Your task to perform on an android device: Open Google Chrome and click the shortcut for Amazon.com Image 0: 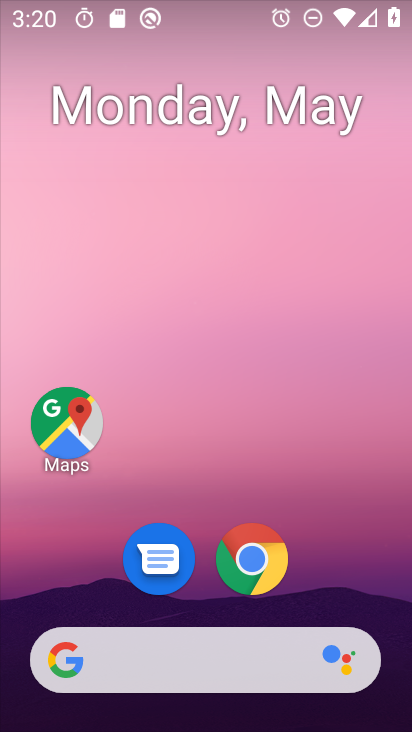
Step 0: drag from (188, 546) to (271, 137)
Your task to perform on an android device: Open Google Chrome and click the shortcut for Amazon.com Image 1: 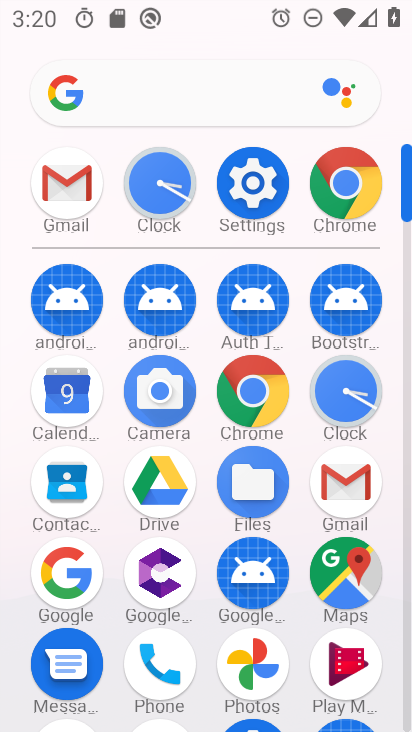
Step 1: click (258, 399)
Your task to perform on an android device: Open Google Chrome and click the shortcut for Amazon.com Image 2: 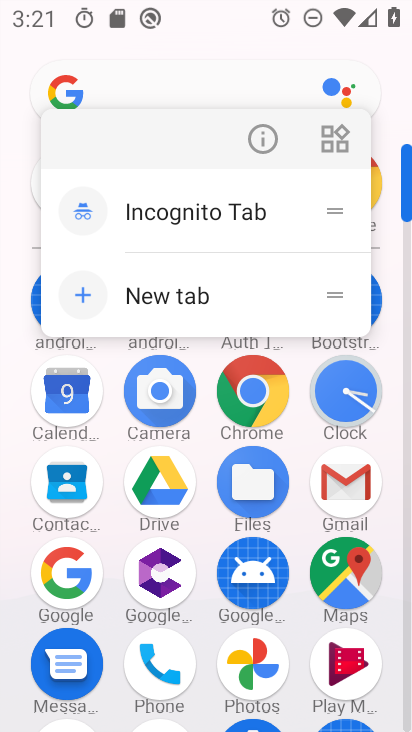
Step 2: click (264, 148)
Your task to perform on an android device: Open Google Chrome and click the shortcut for Amazon.com Image 3: 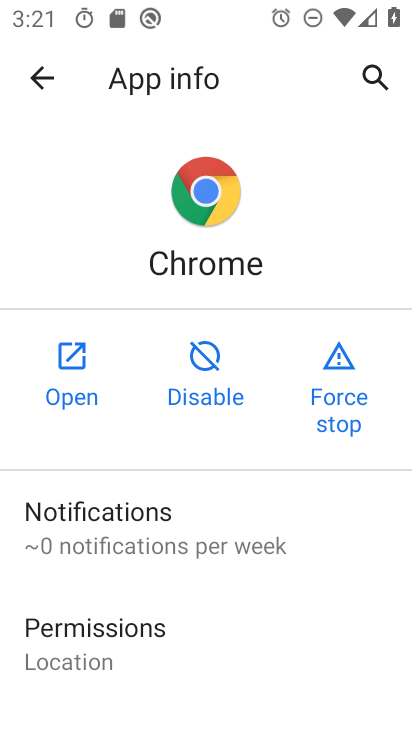
Step 3: click (81, 364)
Your task to perform on an android device: Open Google Chrome and click the shortcut for Amazon.com Image 4: 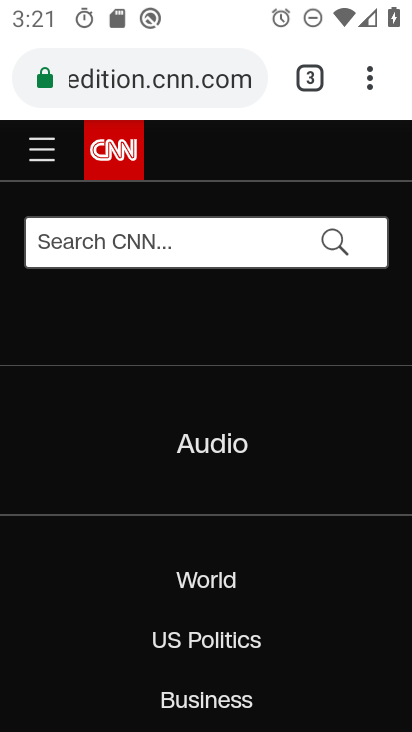
Step 4: click (190, 88)
Your task to perform on an android device: Open Google Chrome and click the shortcut for Amazon.com Image 5: 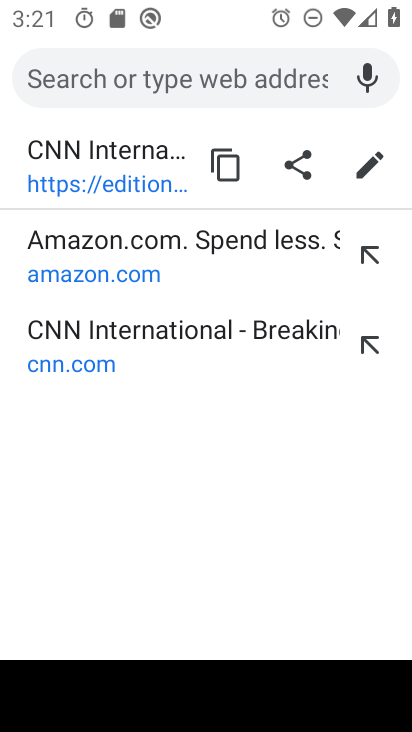
Step 5: type "amazon"
Your task to perform on an android device: Open Google Chrome and click the shortcut for Amazon.com Image 6: 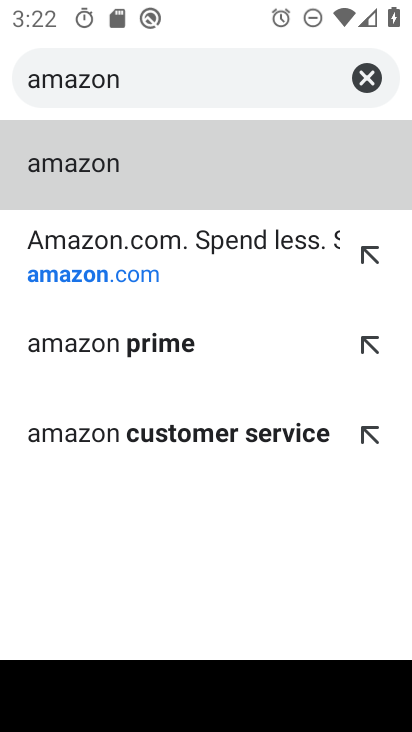
Step 6: drag from (183, 473) to (240, 313)
Your task to perform on an android device: Open Google Chrome and click the shortcut for Amazon.com Image 7: 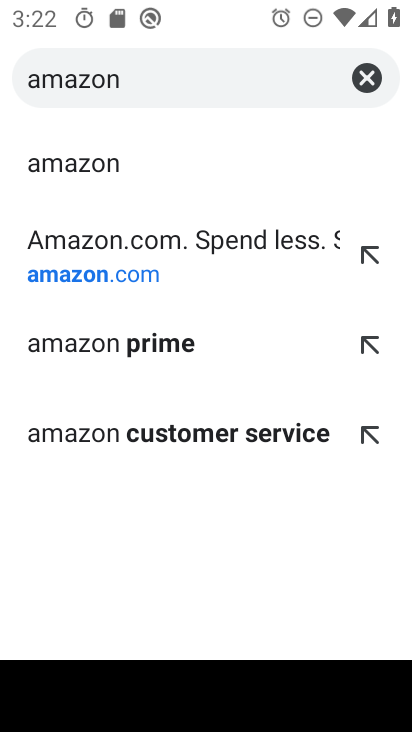
Step 7: click (78, 263)
Your task to perform on an android device: Open Google Chrome and click the shortcut for Amazon.com Image 8: 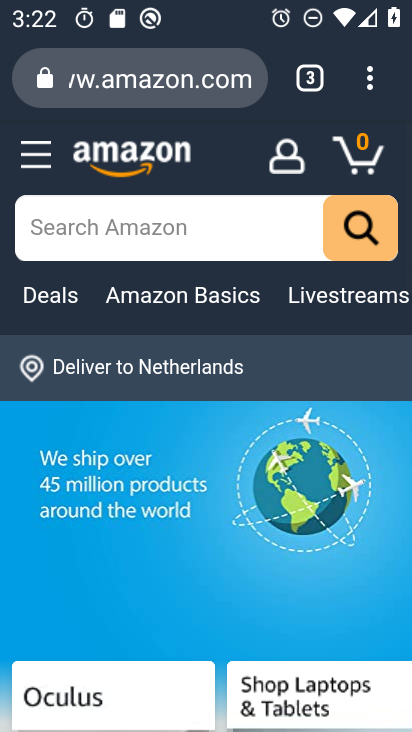
Step 8: drag from (214, 640) to (286, 212)
Your task to perform on an android device: Open Google Chrome and click the shortcut for Amazon.com Image 9: 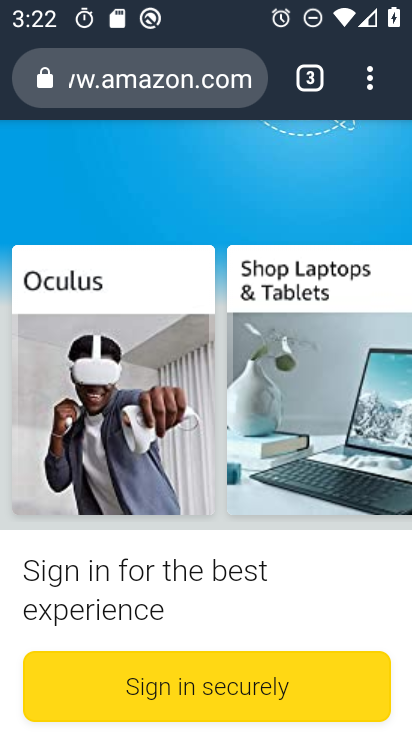
Step 9: drag from (270, 532) to (286, 252)
Your task to perform on an android device: Open Google Chrome and click the shortcut for Amazon.com Image 10: 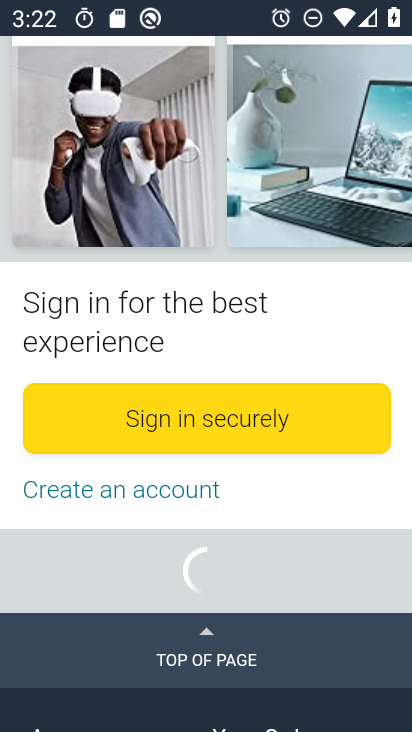
Step 10: drag from (205, 577) to (260, 169)
Your task to perform on an android device: Open Google Chrome and click the shortcut for Amazon.com Image 11: 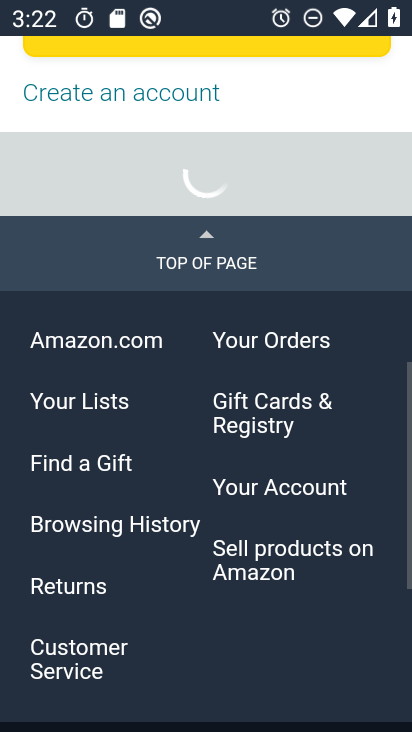
Step 11: drag from (255, 145) to (249, 696)
Your task to perform on an android device: Open Google Chrome and click the shortcut for Amazon.com Image 12: 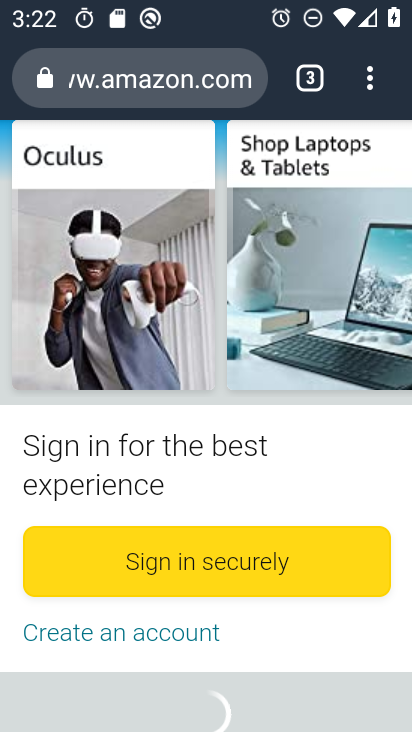
Step 12: drag from (225, 177) to (256, 713)
Your task to perform on an android device: Open Google Chrome and click the shortcut for Amazon.com Image 13: 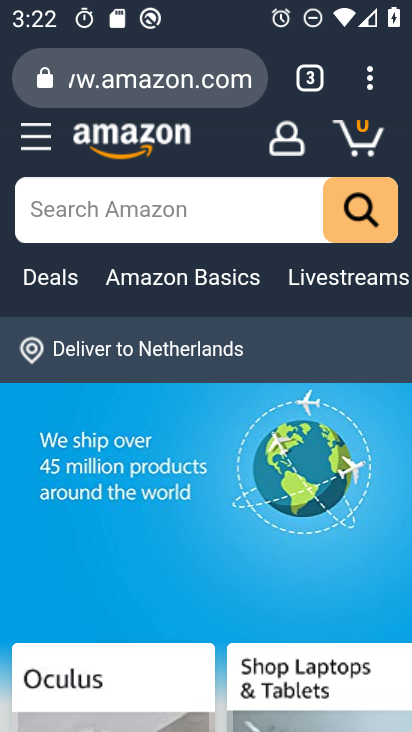
Step 13: drag from (218, 240) to (226, 672)
Your task to perform on an android device: Open Google Chrome and click the shortcut for Amazon.com Image 14: 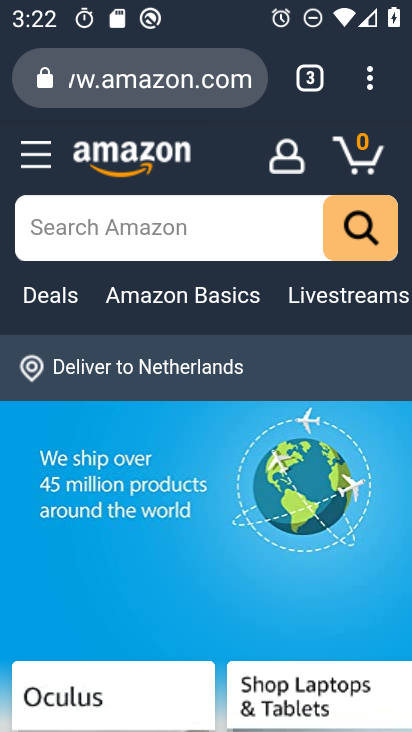
Step 14: drag from (215, 560) to (252, 261)
Your task to perform on an android device: Open Google Chrome and click the shortcut for Amazon.com Image 15: 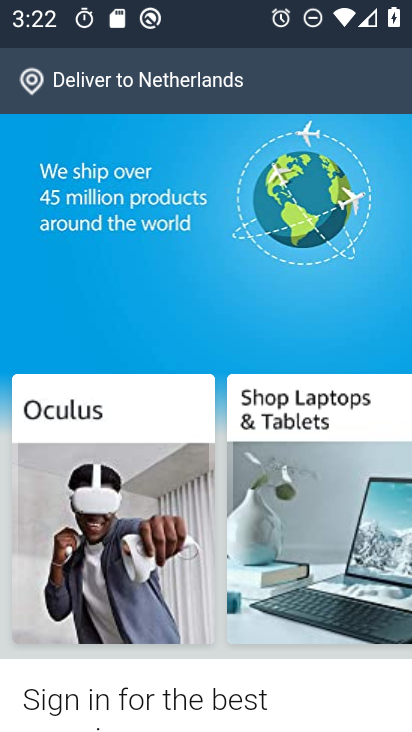
Step 15: drag from (240, 684) to (252, 384)
Your task to perform on an android device: Open Google Chrome and click the shortcut for Amazon.com Image 16: 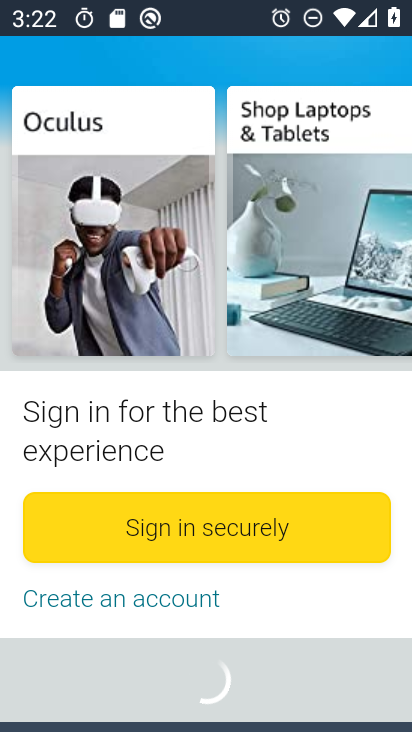
Step 16: drag from (237, 310) to (280, 644)
Your task to perform on an android device: Open Google Chrome and click the shortcut for Amazon.com Image 17: 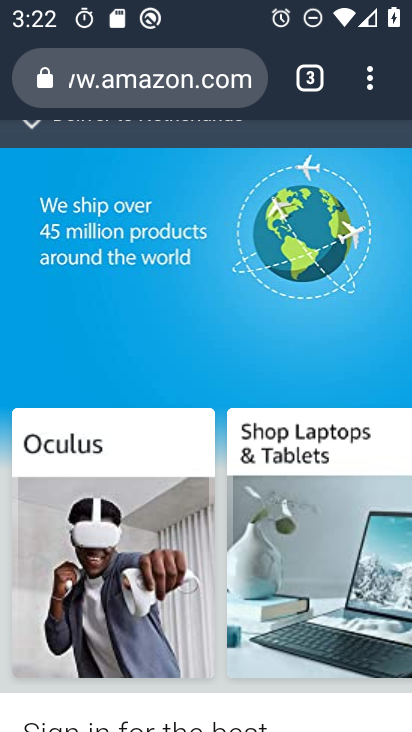
Step 17: drag from (175, 645) to (273, 180)
Your task to perform on an android device: Open Google Chrome and click the shortcut for Amazon.com Image 18: 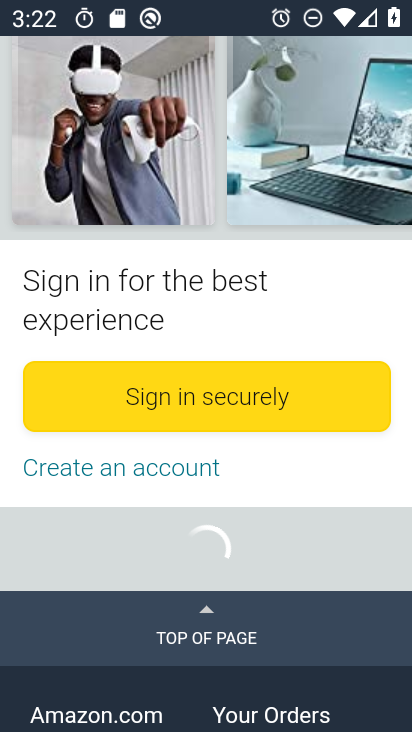
Step 18: drag from (271, 214) to (315, 725)
Your task to perform on an android device: Open Google Chrome and click the shortcut for Amazon.com Image 19: 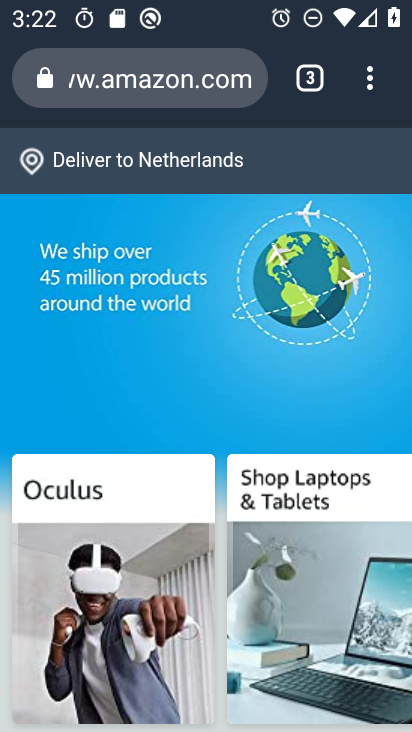
Step 19: click (367, 75)
Your task to perform on an android device: Open Google Chrome and click the shortcut for Amazon.com Image 20: 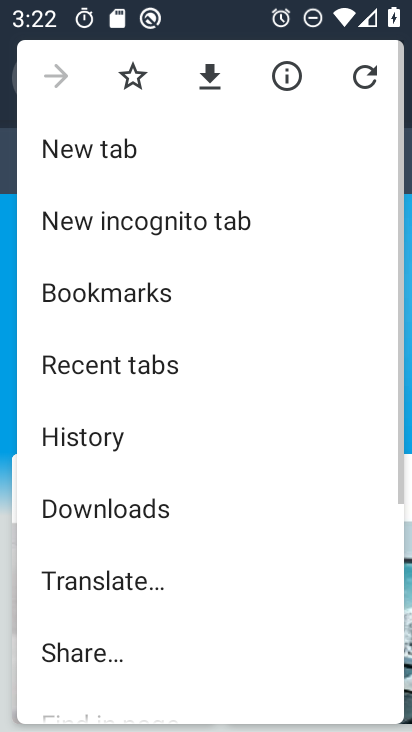
Step 20: drag from (172, 601) to (225, 204)
Your task to perform on an android device: Open Google Chrome and click the shortcut for Amazon.com Image 21: 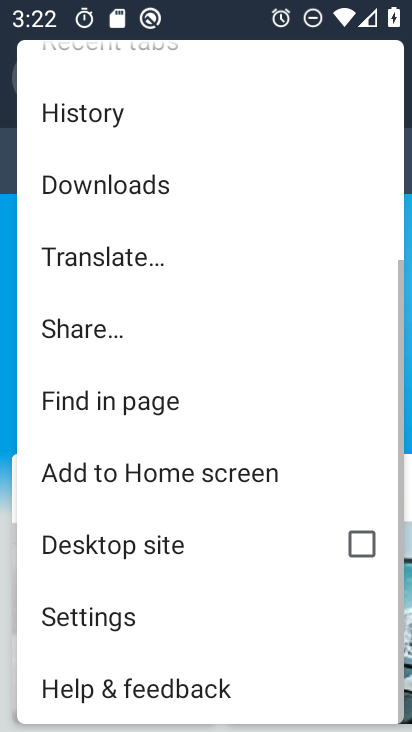
Step 21: drag from (123, 620) to (193, 331)
Your task to perform on an android device: Open Google Chrome and click the shortcut for Amazon.com Image 22: 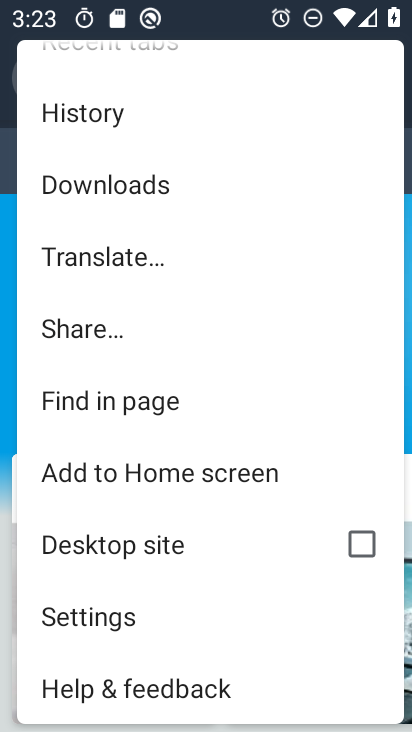
Step 22: click (8, 72)
Your task to perform on an android device: Open Google Chrome and click the shortcut for Amazon.com Image 23: 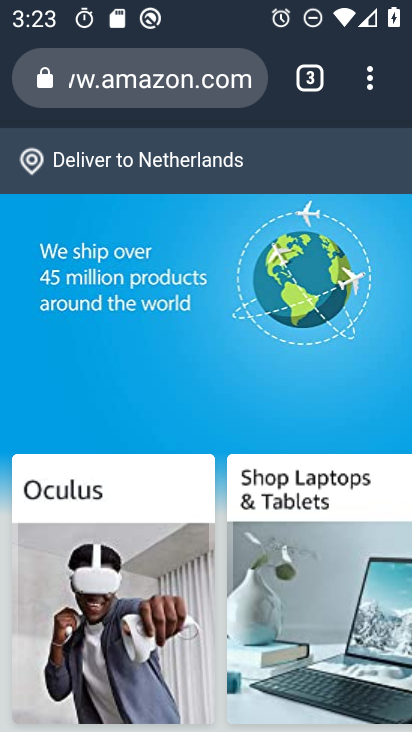
Step 23: task complete